Your task to perform on an android device: turn vacation reply on in the gmail app Image 0: 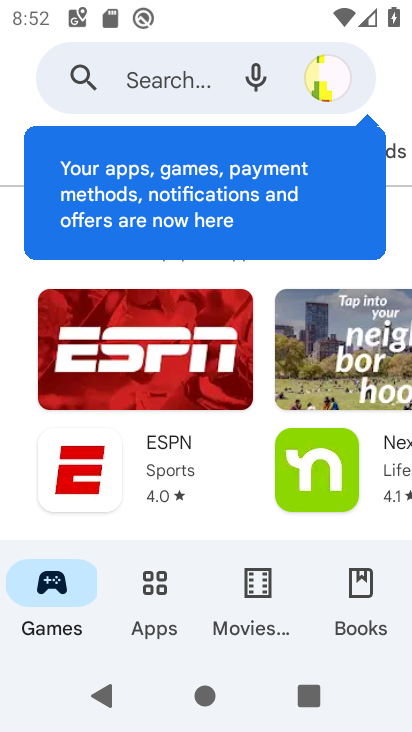
Step 0: press home button
Your task to perform on an android device: turn vacation reply on in the gmail app Image 1: 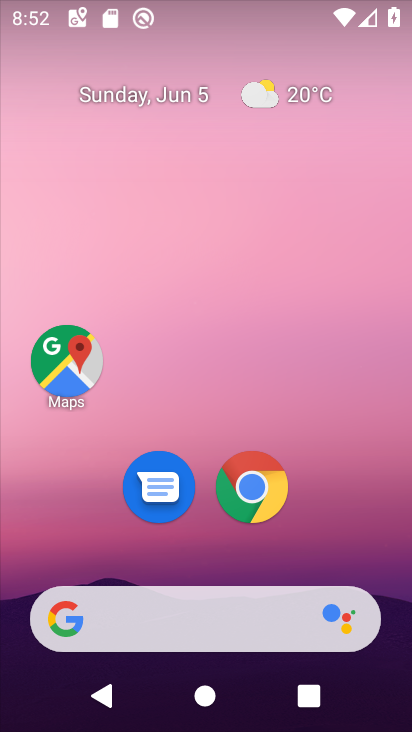
Step 1: drag from (284, 547) to (273, 248)
Your task to perform on an android device: turn vacation reply on in the gmail app Image 2: 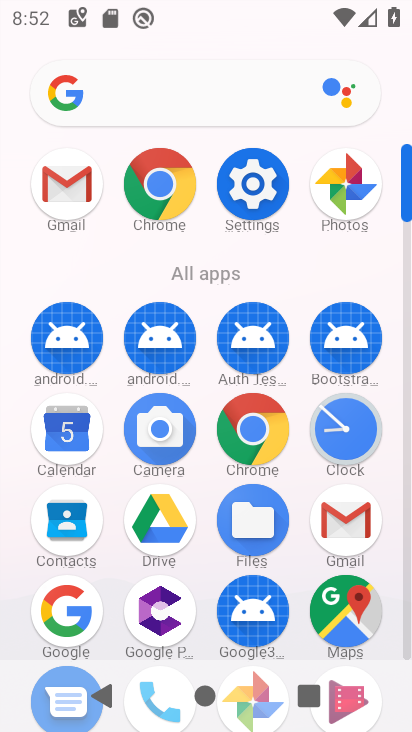
Step 2: click (334, 534)
Your task to perform on an android device: turn vacation reply on in the gmail app Image 3: 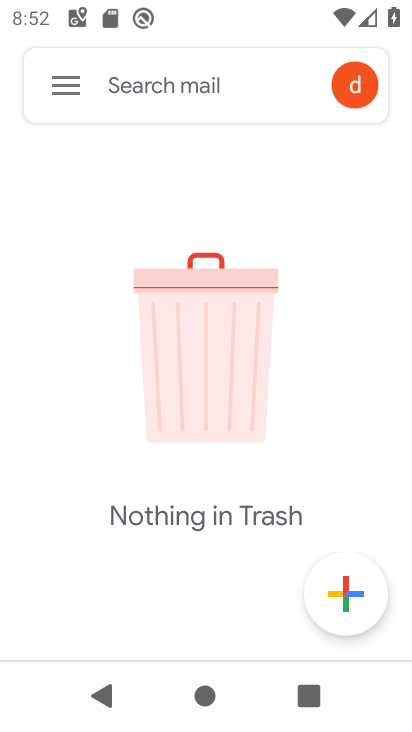
Step 3: click (69, 91)
Your task to perform on an android device: turn vacation reply on in the gmail app Image 4: 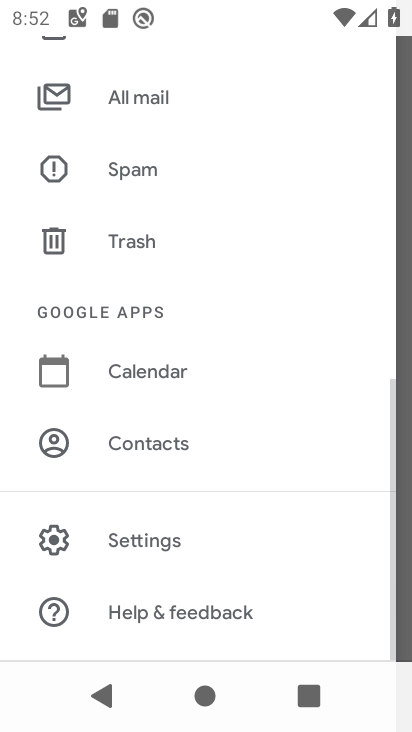
Step 4: click (146, 542)
Your task to perform on an android device: turn vacation reply on in the gmail app Image 5: 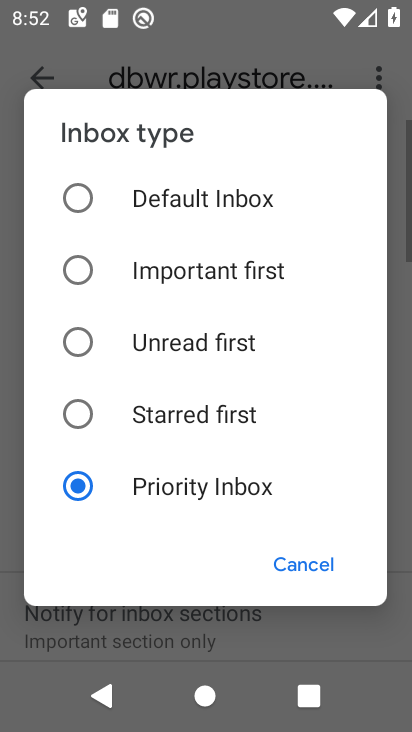
Step 5: click (184, 601)
Your task to perform on an android device: turn vacation reply on in the gmail app Image 6: 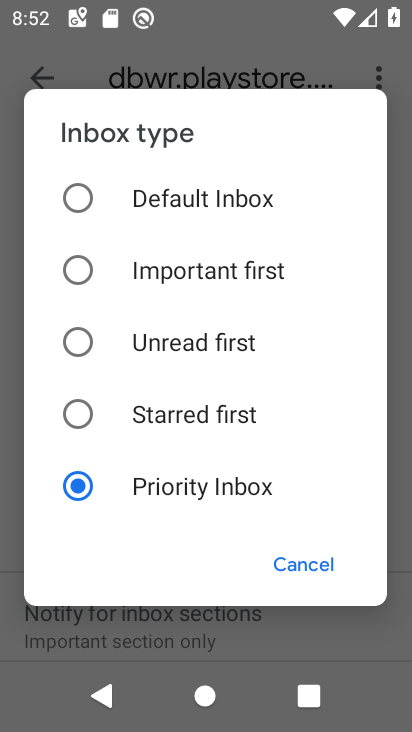
Step 6: click (320, 581)
Your task to perform on an android device: turn vacation reply on in the gmail app Image 7: 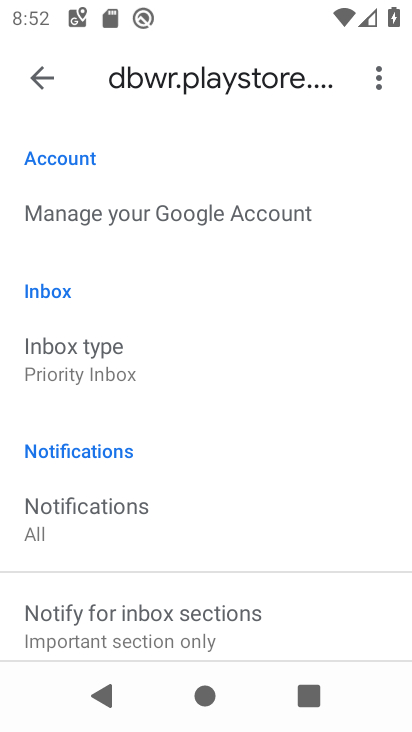
Step 7: drag from (203, 590) to (251, 140)
Your task to perform on an android device: turn vacation reply on in the gmail app Image 8: 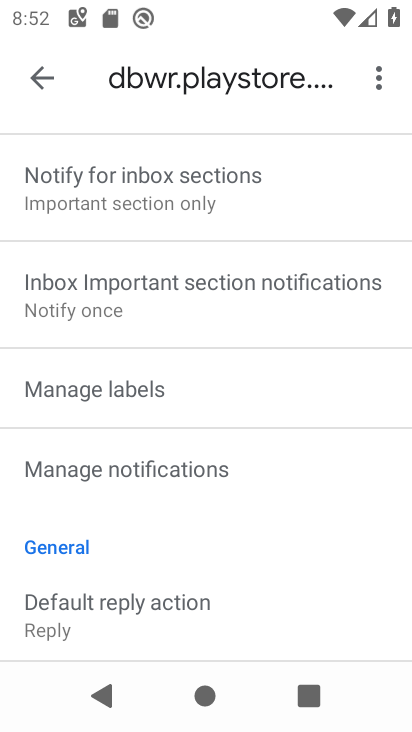
Step 8: drag from (176, 590) to (223, 156)
Your task to perform on an android device: turn vacation reply on in the gmail app Image 9: 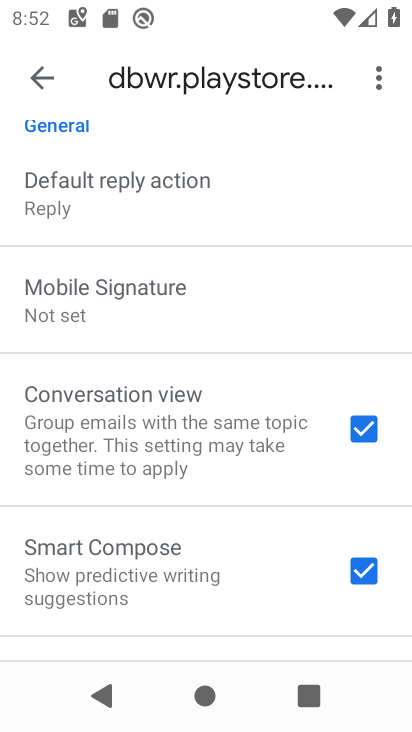
Step 9: drag from (147, 560) to (167, 240)
Your task to perform on an android device: turn vacation reply on in the gmail app Image 10: 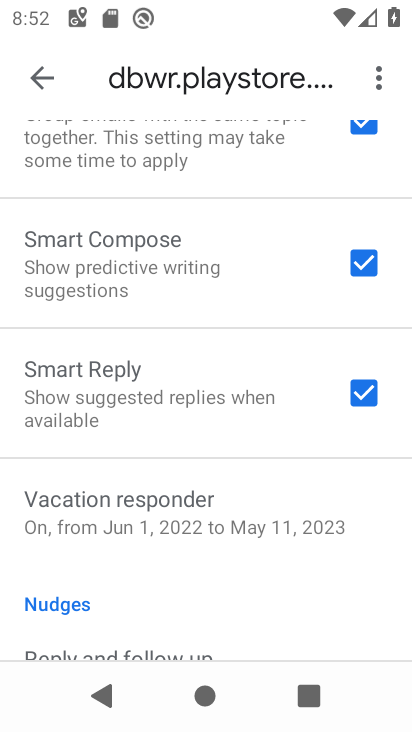
Step 10: click (151, 504)
Your task to perform on an android device: turn vacation reply on in the gmail app Image 11: 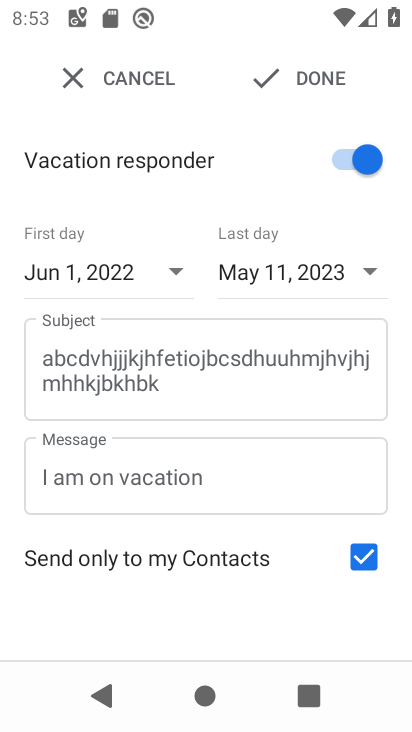
Step 11: task complete